Your task to perform on an android device: turn on the 24-hour format for clock Image 0: 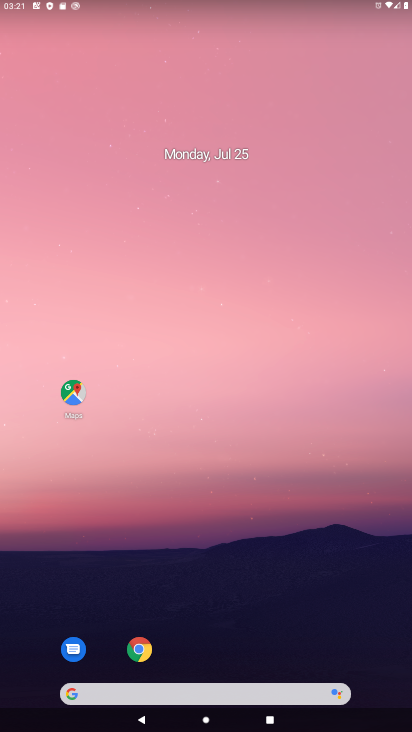
Step 0: drag from (367, 651) to (350, 129)
Your task to perform on an android device: turn on the 24-hour format for clock Image 1: 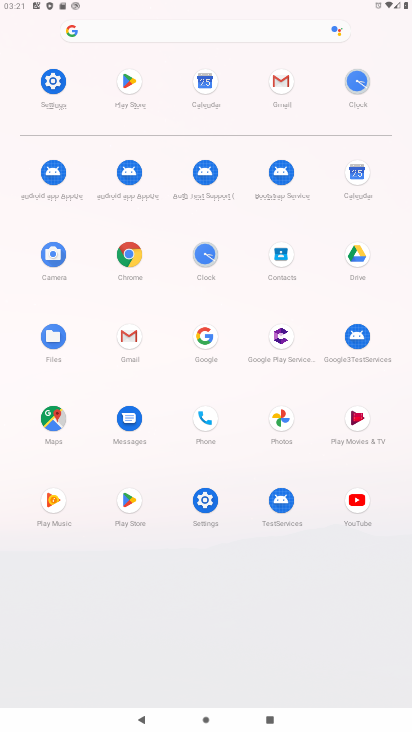
Step 1: click (206, 255)
Your task to perform on an android device: turn on the 24-hour format for clock Image 2: 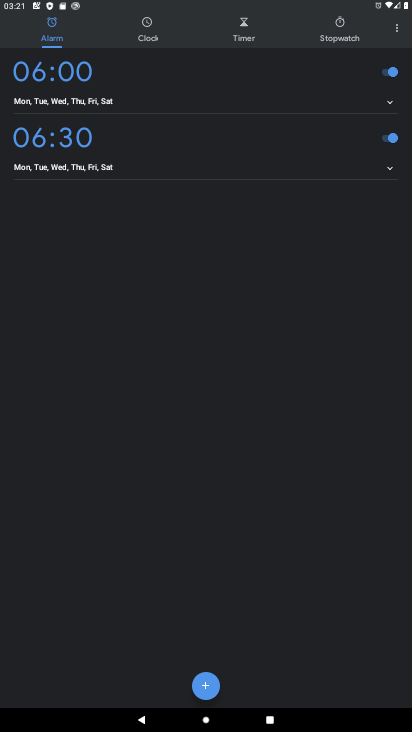
Step 2: click (400, 32)
Your task to perform on an android device: turn on the 24-hour format for clock Image 3: 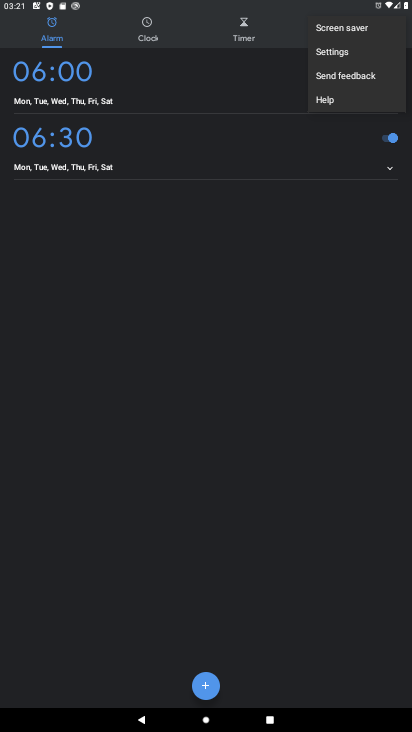
Step 3: click (329, 53)
Your task to perform on an android device: turn on the 24-hour format for clock Image 4: 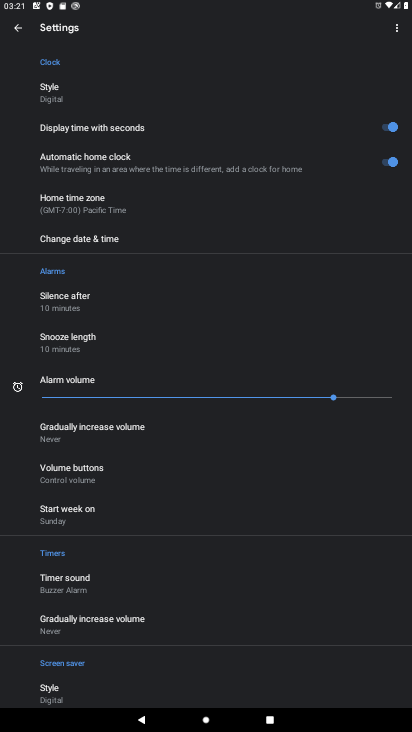
Step 4: click (75, 239)
Your task to perform on an android device: turn on the 24-hour format for clock Image 5: 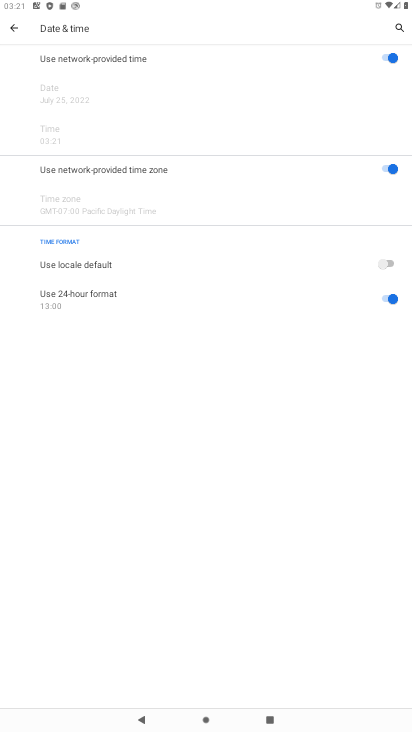
Step 5: task complete